Your task to perform on an android device: turn notification dots on Image 0: 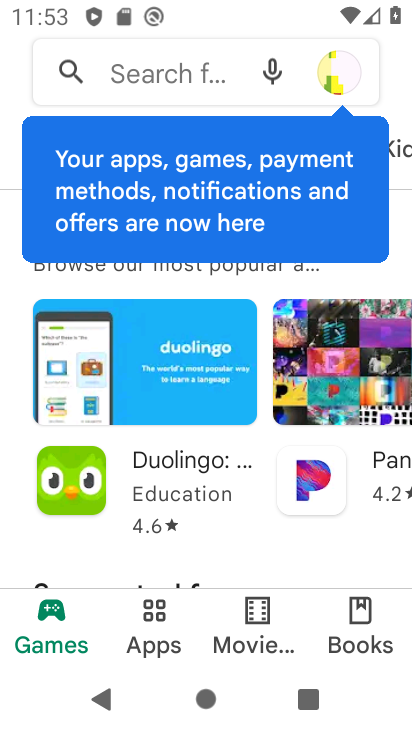
Step 0: press home button
Your task to perform on an android device: turn notification dots on Image 1: 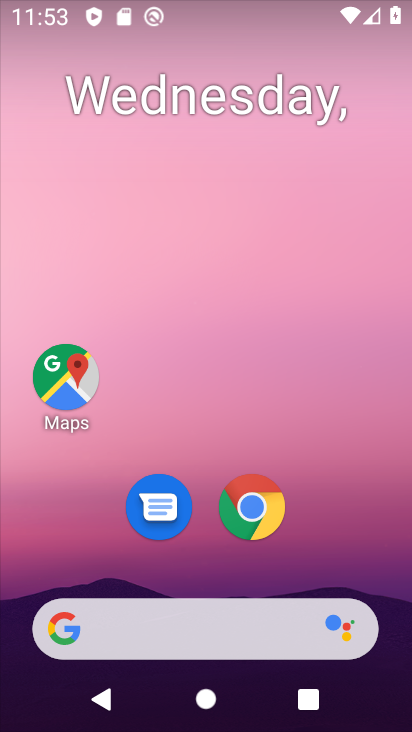
Step 1: drag from (333, 556) to (336, 387)
Your task to perform on an android device: turn notification dots on Image 2: 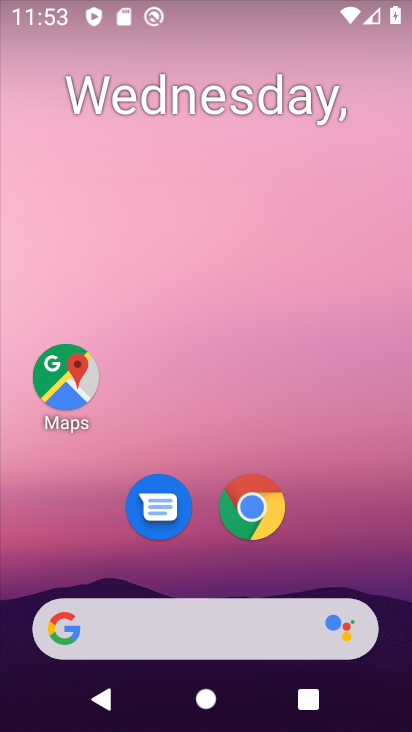
Step 2: drag from (244, 579) to (242, 54)
Your task to perform on an android device: turn notification dots on Image 3: 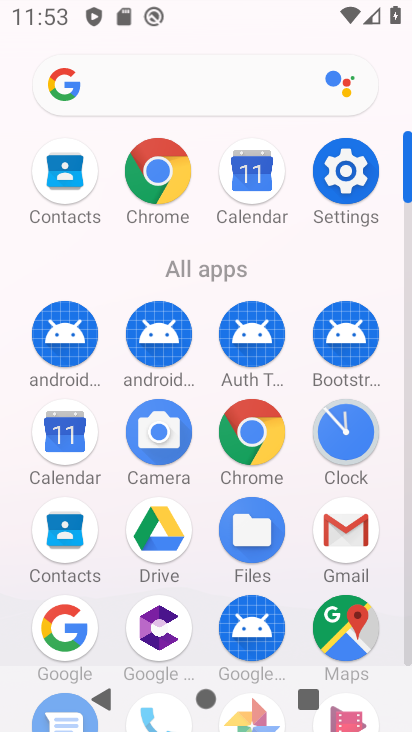
Step 3: click (329, 181)
Your task to perform on an android device: turn notification dots on Image 4: 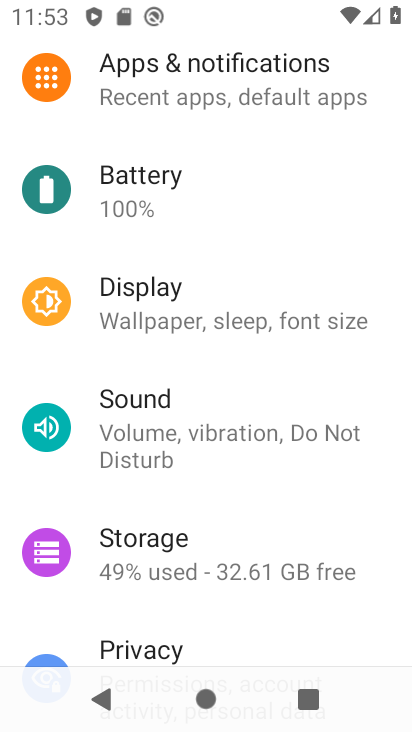
Step 4: drag from (211, 175) to (201, 569)
Your task to perform on an android device: turn notification dots on Image 5: 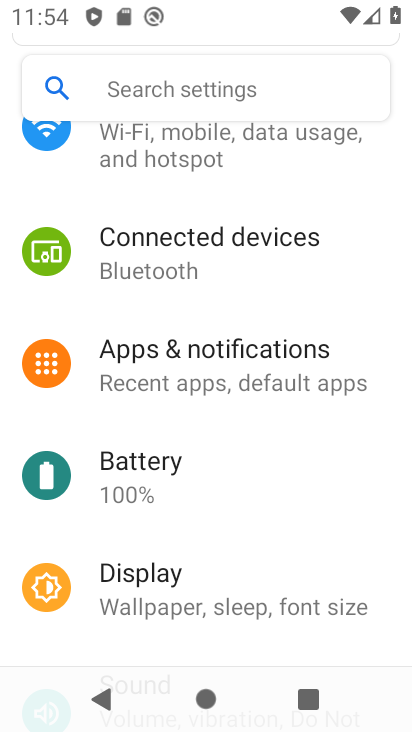
Step 5: click (247, 360)
Your task to perform on an android device: turn notification dots on Image 6: 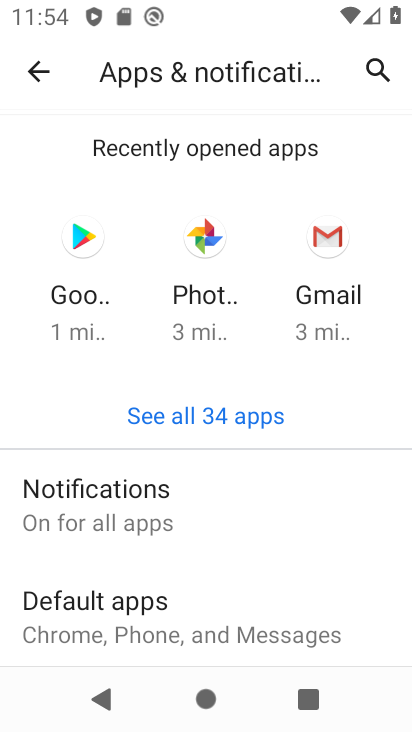
Step 6: click (218, 500)
Your task to perform on an android device: turn notification dots on Image 7: 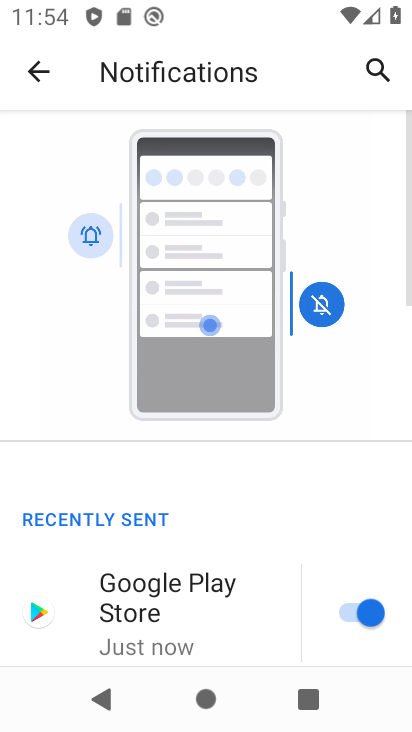
Step 7: drag from (225, 500) to (238, 214)
Your task to perform on an android device: turn notification dots on Image 8: 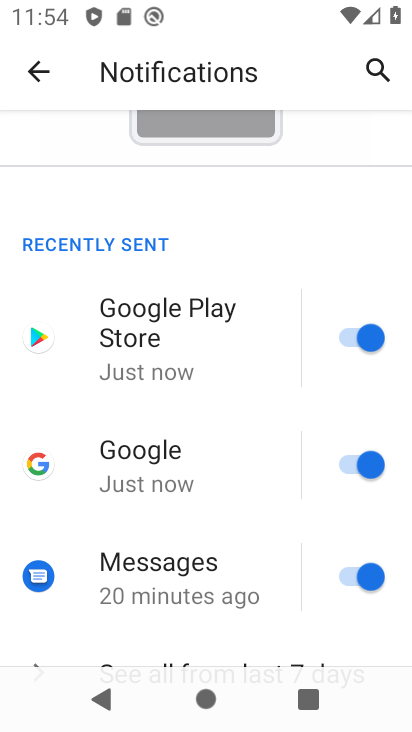
Step 8: drag from (229, 574) to (271, 233)
Your task to perform on an android device: turn notification dots on Image 9: 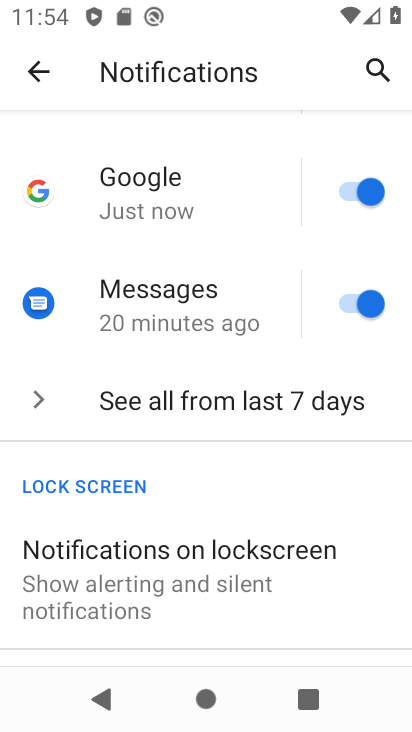
Step 9: drag from (249, 535) to (276, 233)
Your task to perform on an android device: turn notification dots on Image 10: 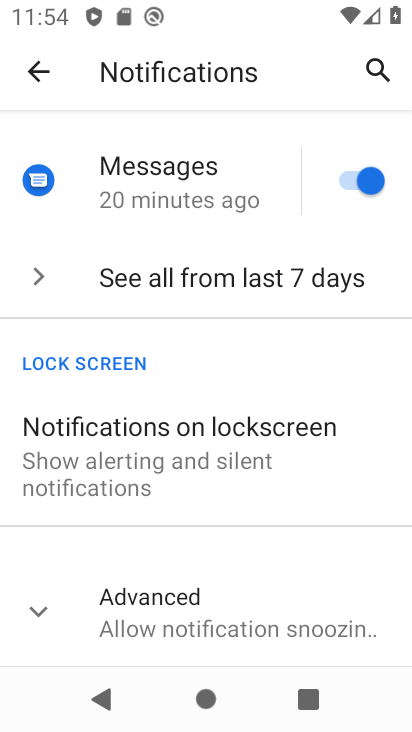
Step 10: click (260, 618)
Your task to perform on an android device: turn notification dots on Image 11: 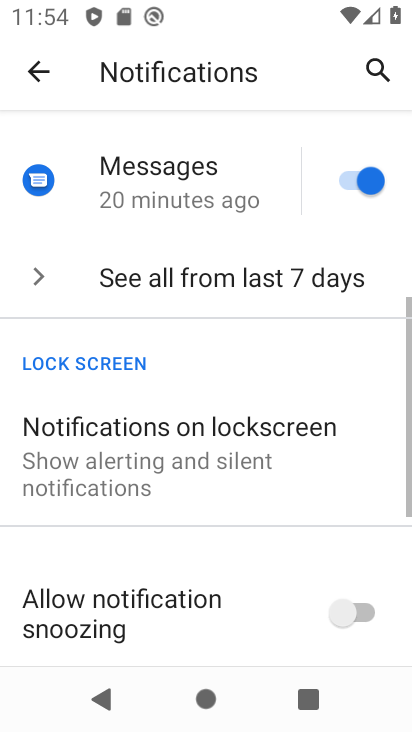
Step 11: task complete